Your task to perform on an android device: turn off location Image 0: 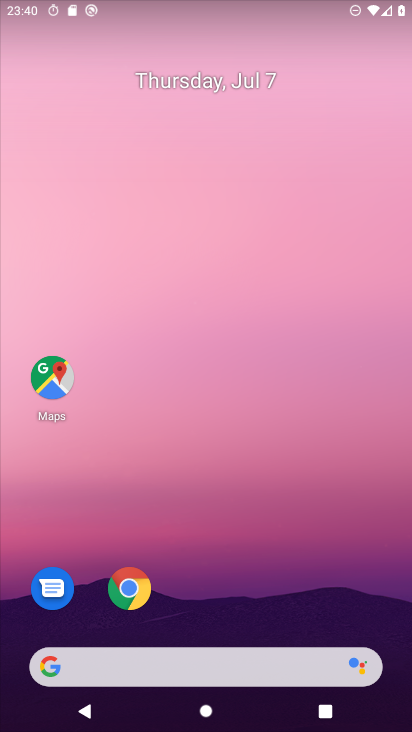
Step 0: drag from (305, 597) to (297, 87)
Your task to perform on an android device: turn off location Image 1: 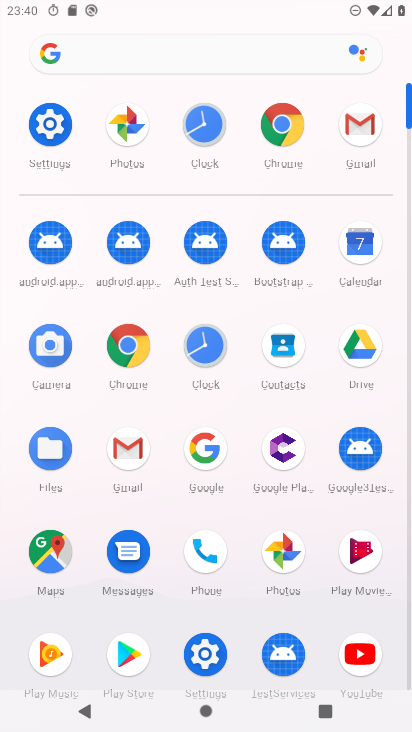
Step 1: click (54, 116)
Your task to perform on an android device: turn off location Image 2: 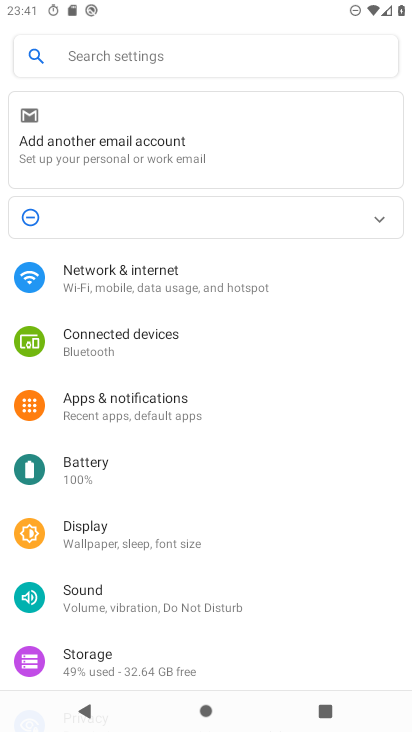
Step 2: drag from (220, 616) to (283, 166)
Your task to perform on an android device: turn off location Image 3: 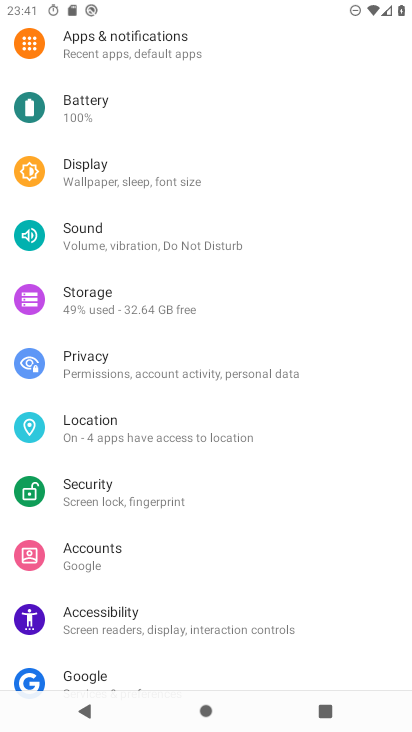
Step 3: click (148, 435)
Your task to perform on an android device: turn off location Image 4: 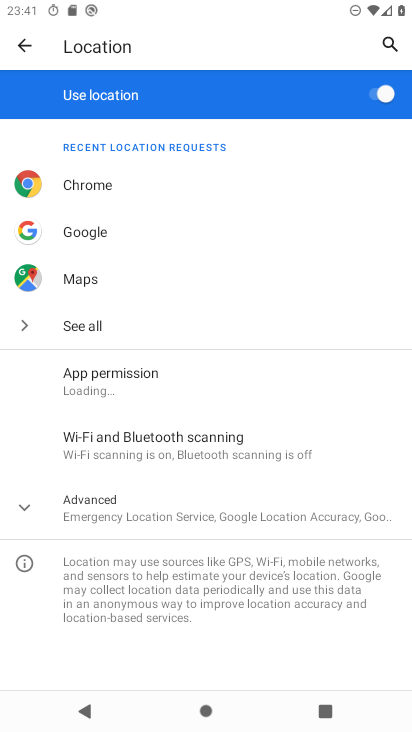
Step 4: click (381, 89)
Your task to perform on an android device: turn off location Image 5: 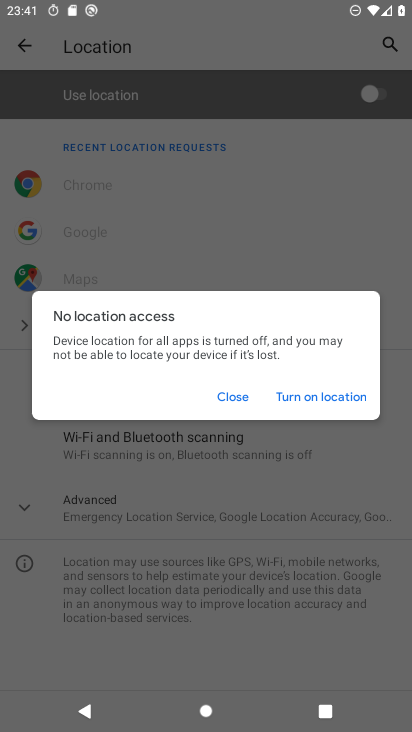
Step 5: task complete